Your task to perform on an android device: Go to location settings Image 0: 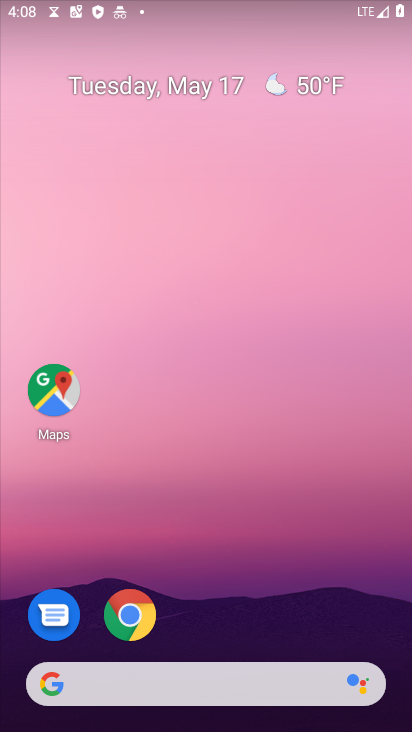
Step 0: drag from (297, 637) to (223, 233)
Your task to perform on an android device: Go to location settings Image 1: 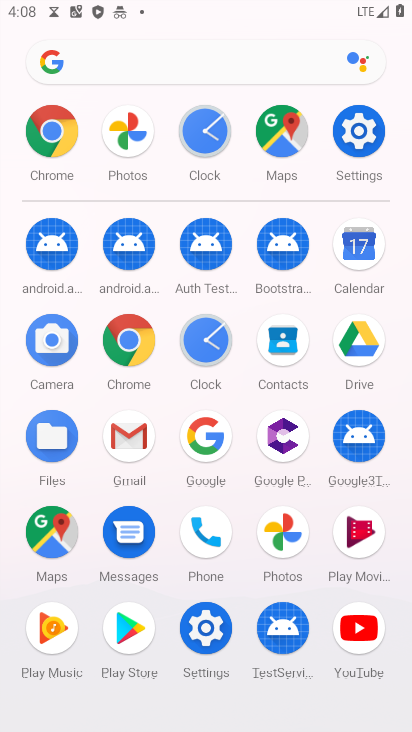
Step 1: click (357, 145)
Your task to perform on an android device: Go to location settings Image 2: 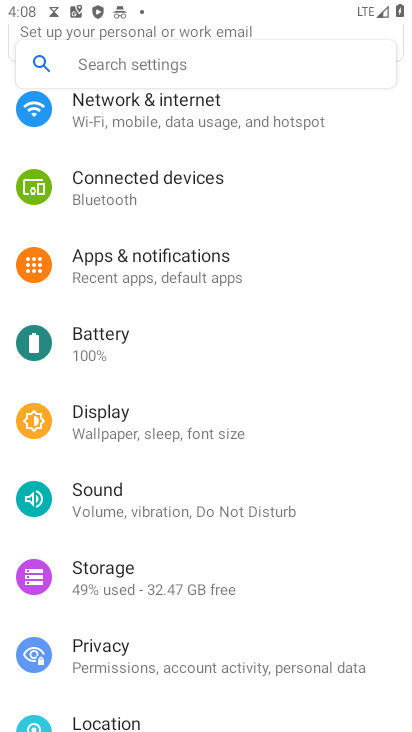
Step 2: drag from (160, 528) to (170, 167)
Your task to perform on an android device: Go to location settings Image 3: 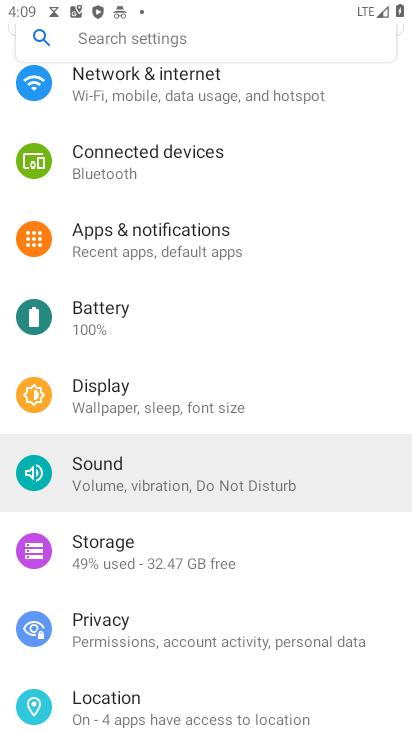
Step 3: drag from (168, 504) to (176, 166)
Your task to perform on an android device: Go to location settings Image 4: 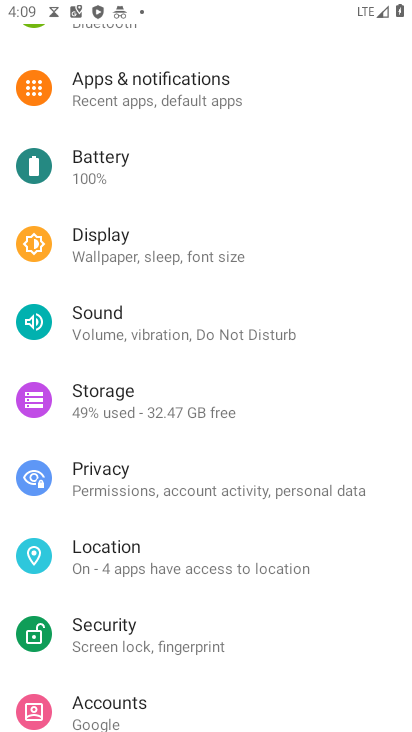
Step 4: click (112, 547)
Your task to perform on an android device: Go to location settings Image 5: 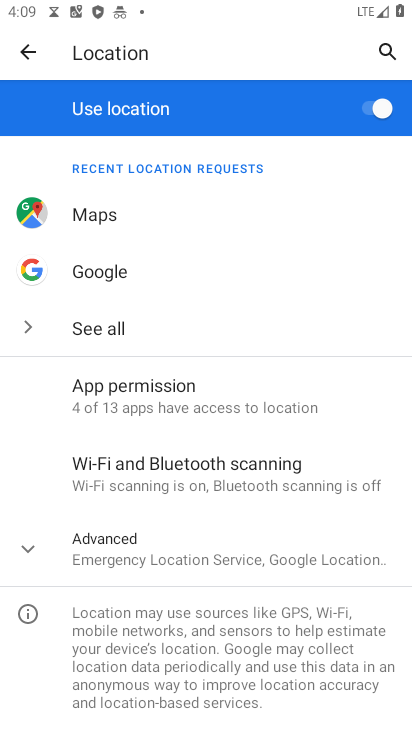
Step 5: task complete